Your task to perform on an android device: Open the web browser Image 0: 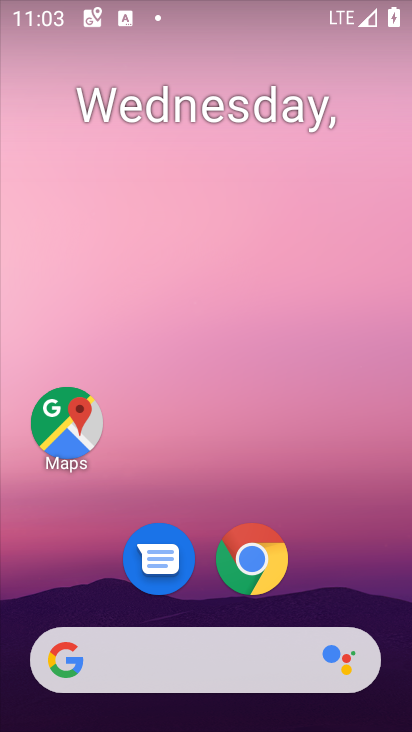
Step 0: drag from (197, 650) to (215, 229)
Your task to perform on an android device: Open the web browser Image 1: 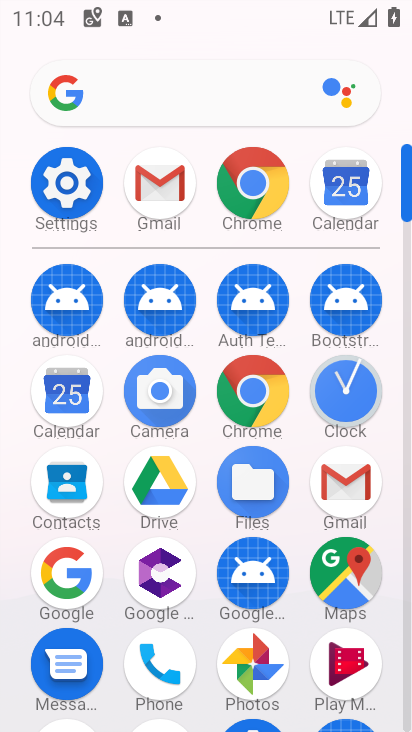
Step 1: click (249, 387)
Your task to perform on an android device: Open the web browser Image 2: 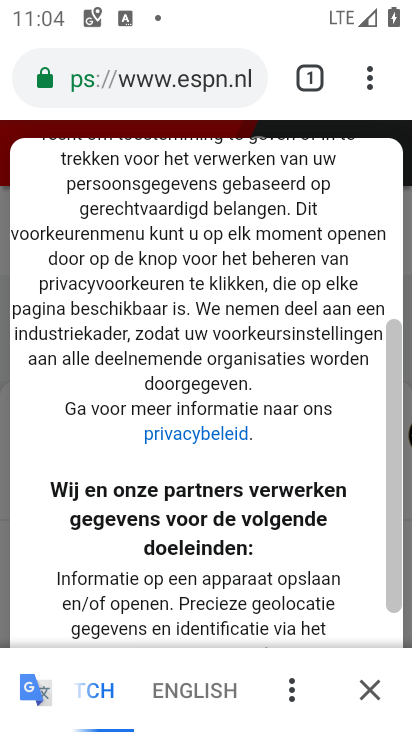
Step 2: task complete